Your task to perform on an android device: toggle wifi Image 0: 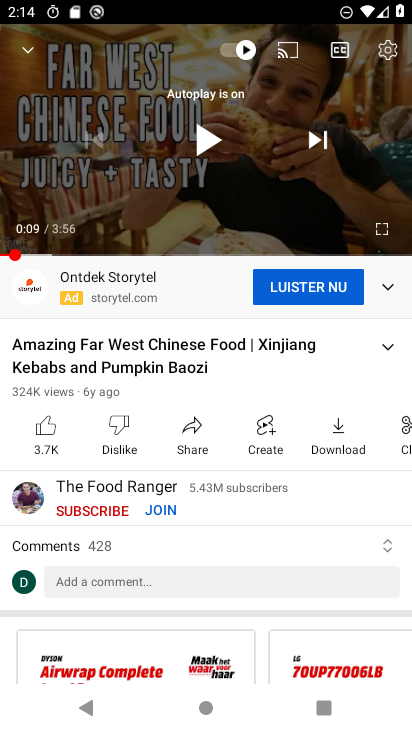
Step 0: press home button
Your task to perform on an android device: toggle wifi Image 1: 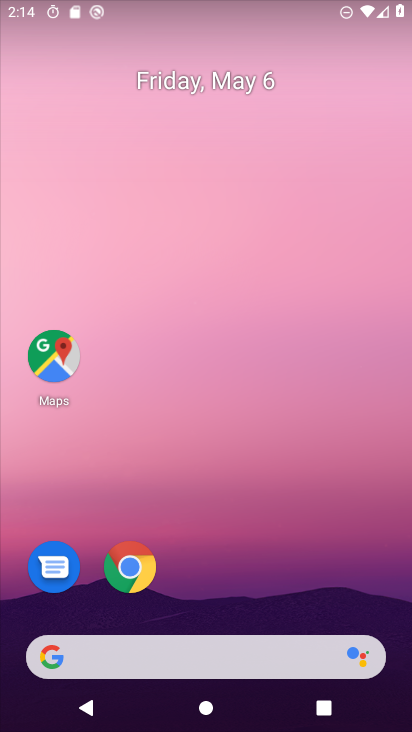
Step 1: drag from (247, 683) to (263, 359)
Your task to perform on an android device: toggle wifi Image 2: 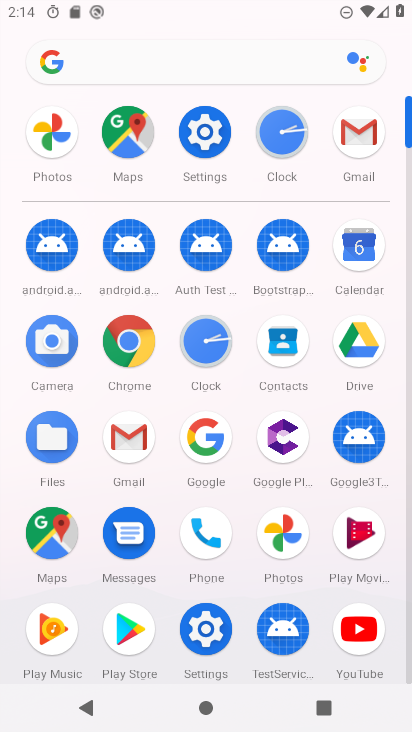
Step 2: click (203, 146)
Your task to perform on an android device: toggle wifi Image 3: 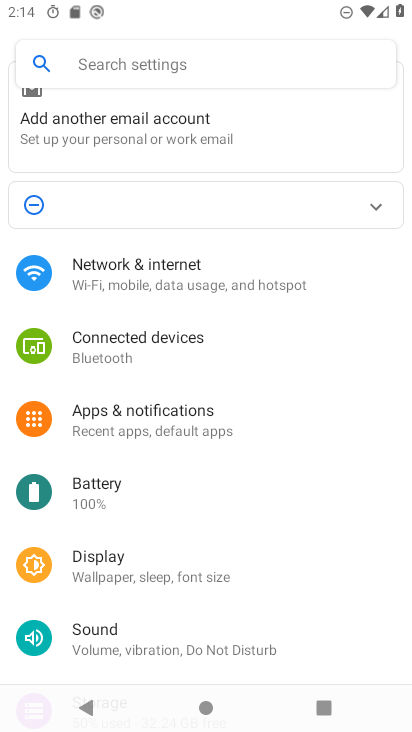
Step 3: click (134, 281)
Your task to perform on an android device: toggle wifi Image 4: 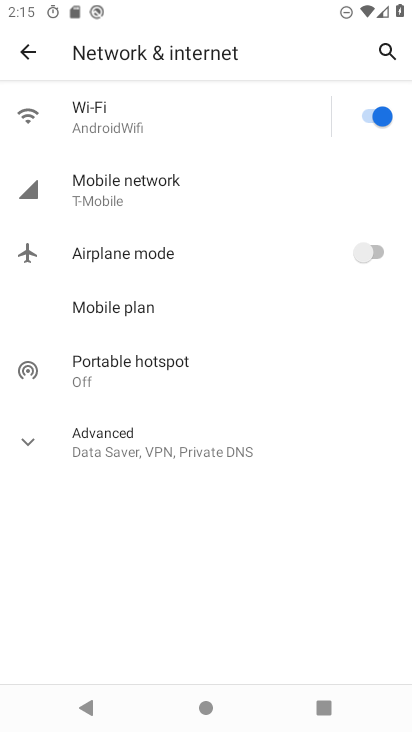
Step 4: click (123, 123)
Your task to perform on an android device: toggle wifi Image 5: 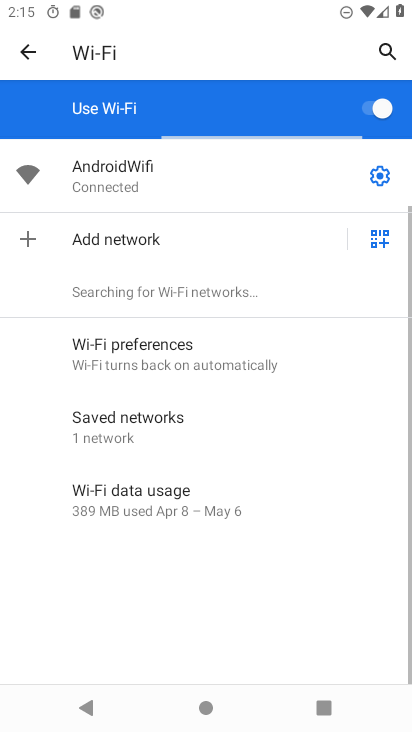
Step 5: task complete